Your task to perform on an android device: refresh tabs in the chrome app Image 0: 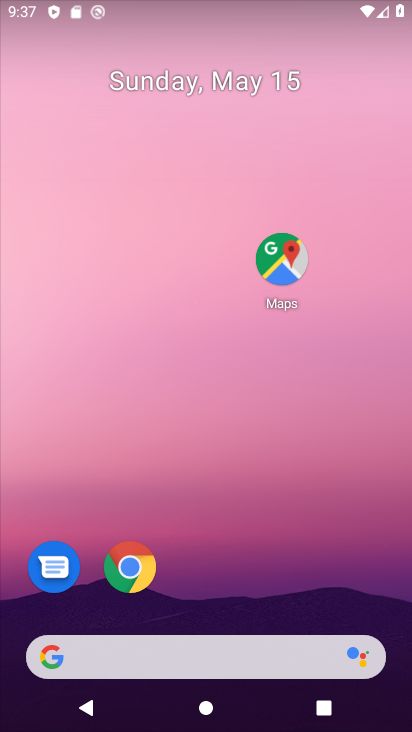
Step 0: click (128, 568)
Your task to perform on an android device: refresh tabs in the chrome app Image 1: 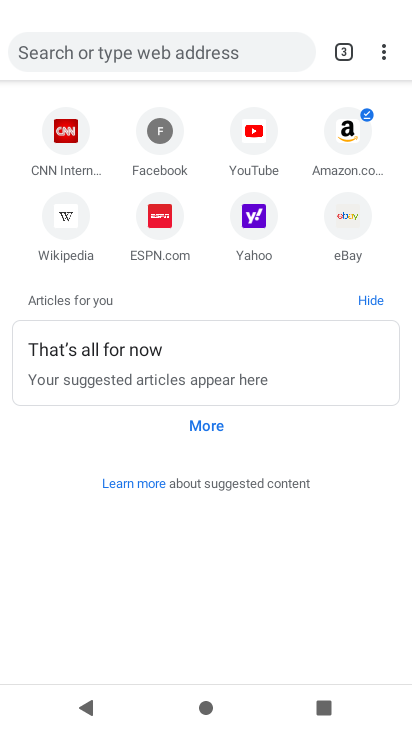
Step 1: click (384, 49)
Your task to perform on an android device: refresh tabs in the chrome app Image 2: 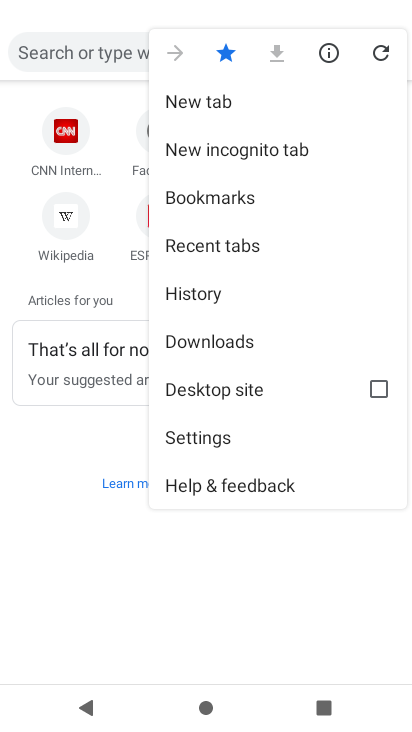
Step 2: click (377, 49)
Your task to perform on an android device: refresh tabs in the chrome app Image 3: 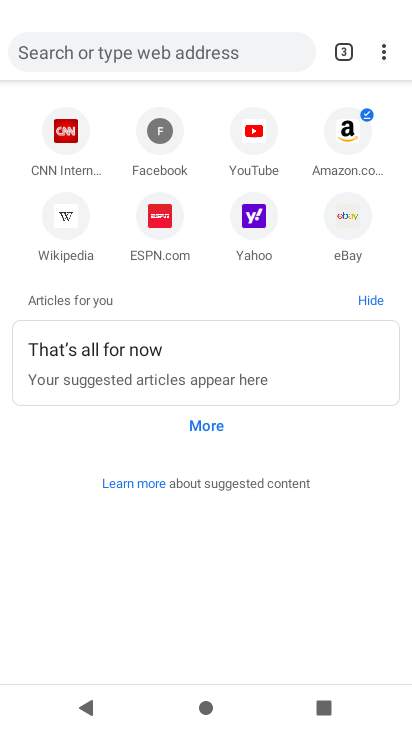
Step 3: task complete